Your task to perform on an android device: Search for "logitech g pro" on bestbuy, select the first entry, and add it to the cart. Image 0: 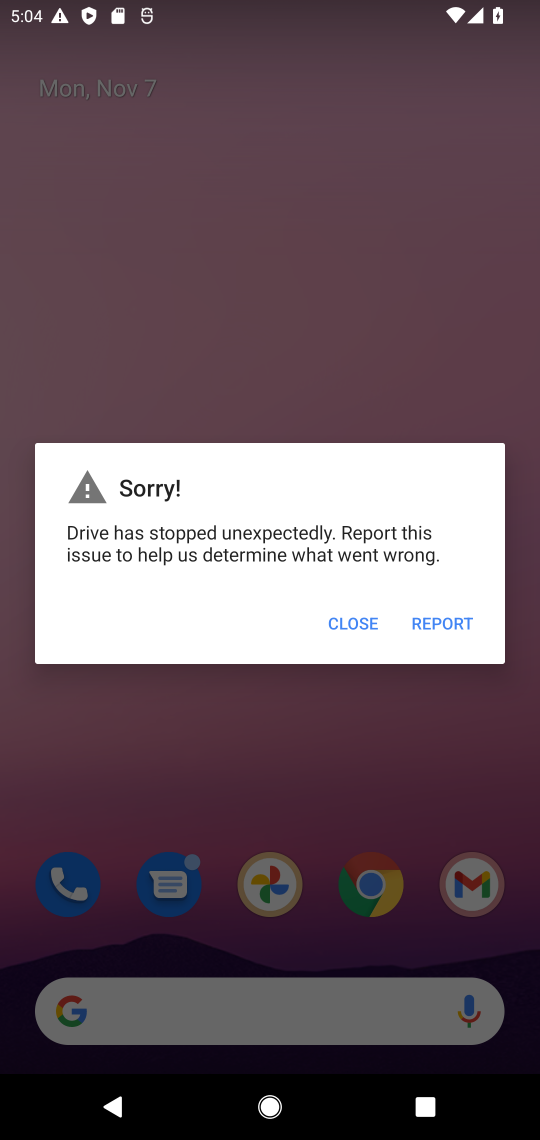
Step 0: press home button
Your task to perform on an android device: Search for "logitech g pro" on bestbuy, select the first entry, and add it to the cart. Image 1: 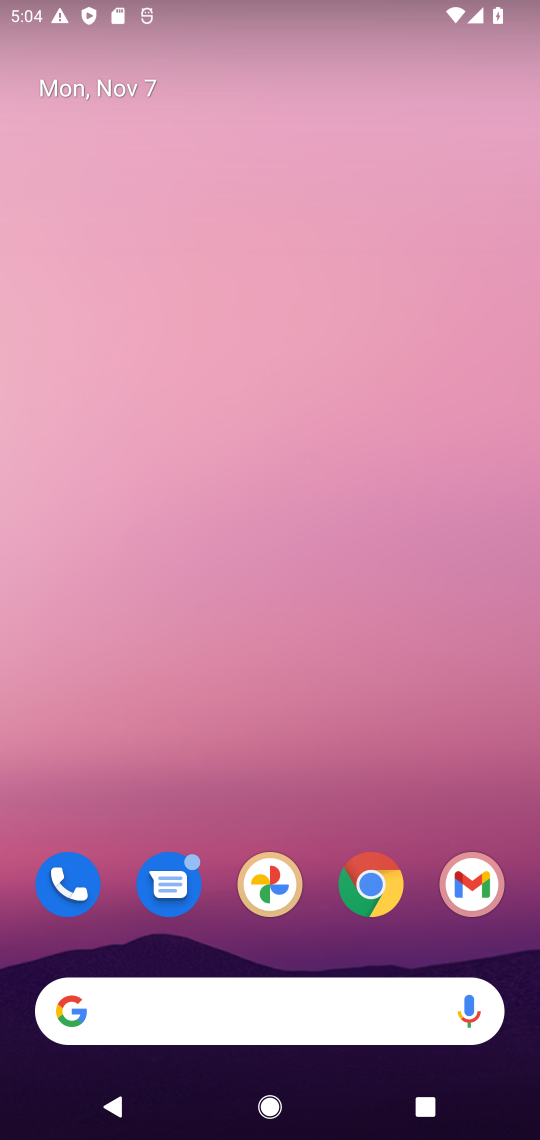
Step 1: drag from (312, 935) to (365, 64)
Your task to perform on an android device: Search for "logitech g pro" on bestbuy, select the first entry, and add it to the cart. Image 2: 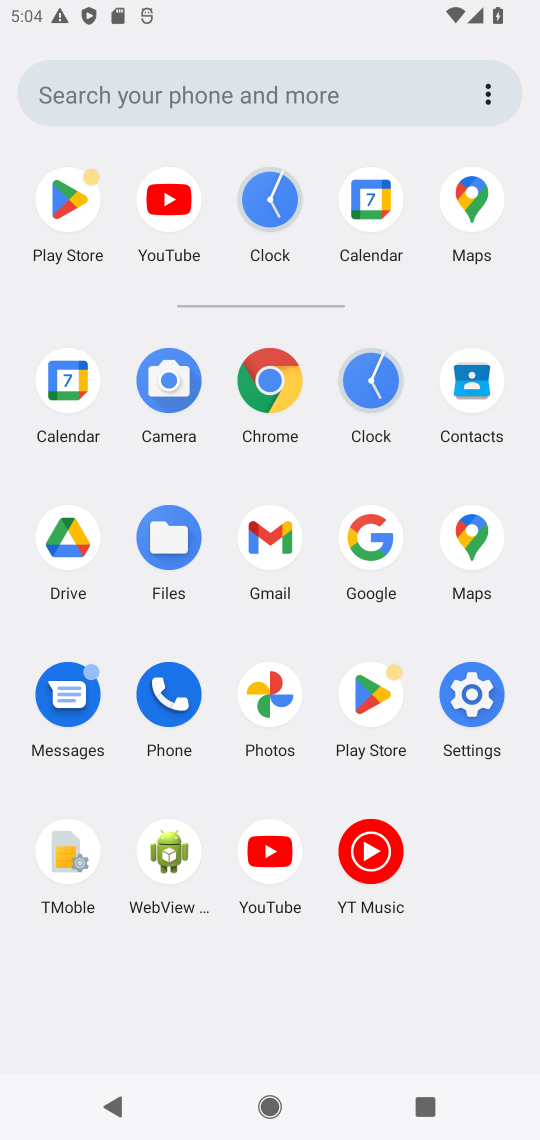
Step 2: click (263, 387)
Your task to perform on an android device: Search for "logitech g pro" on bestbuy, select the first entry, and add it to the cart. Image 3: 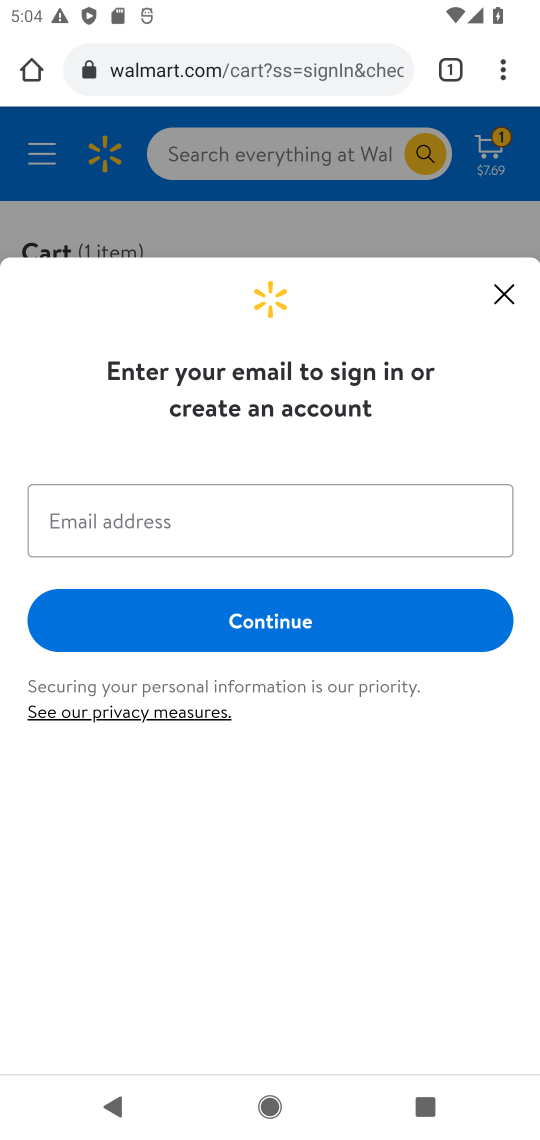
Step 3: click (327, 53)
Your task to perform on an android device: Search for "logitech g pro" on bestbuy, select the first entry, and add it to the cart. Image 4: 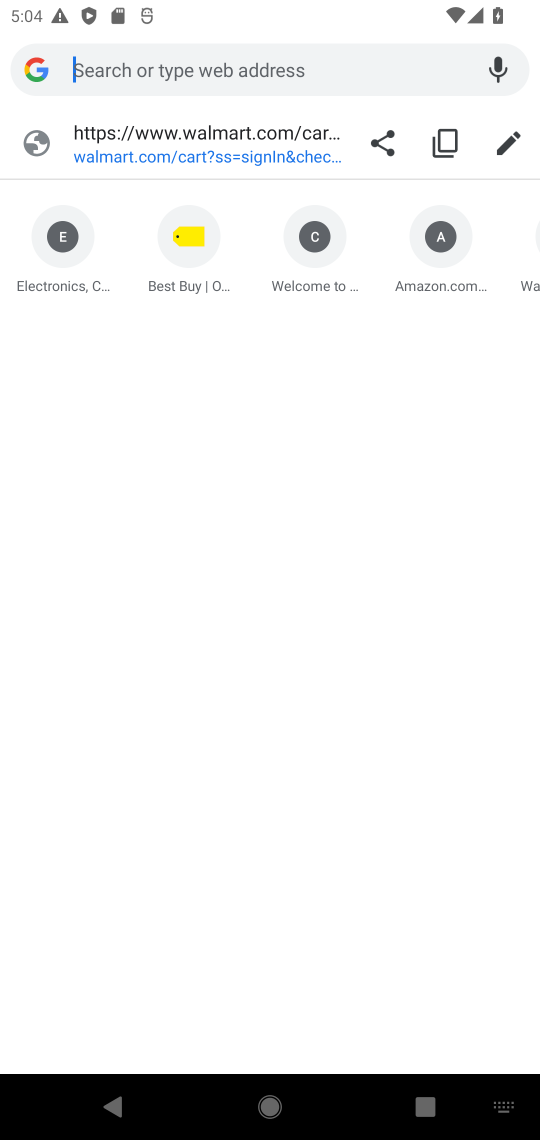
Step 4: type "logitech g pro"
Your task to perform on an android device: Search for "logitech g pro" on bestbuy, select the first entry, and add it to the cart. Image 5: 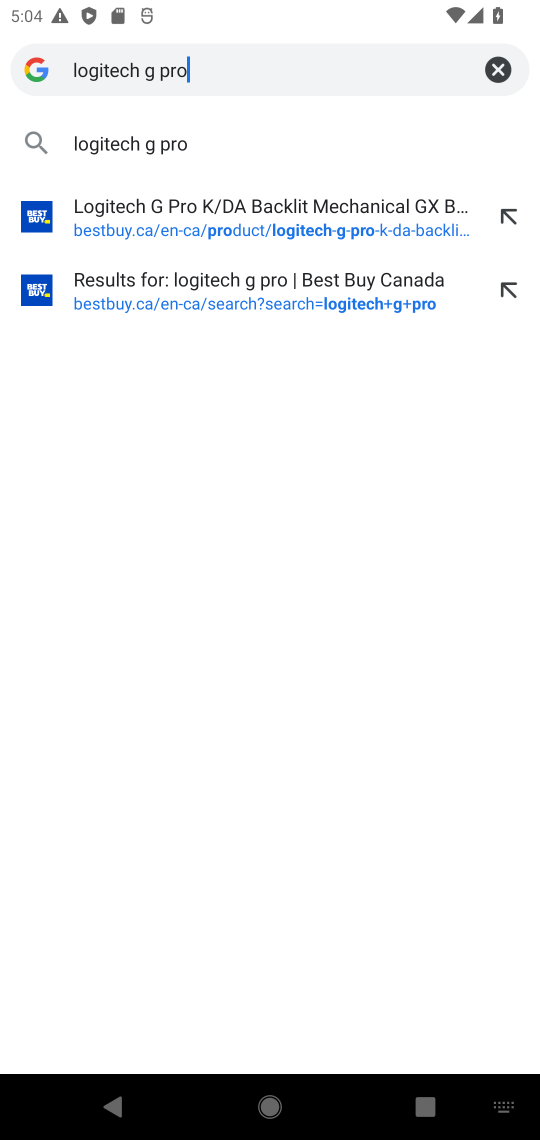
Step 5: press enter
Your task to perform on an android device: Search for "logitech g pro" on bestbuy, select the first entry, and add it to the cart. Image 6: 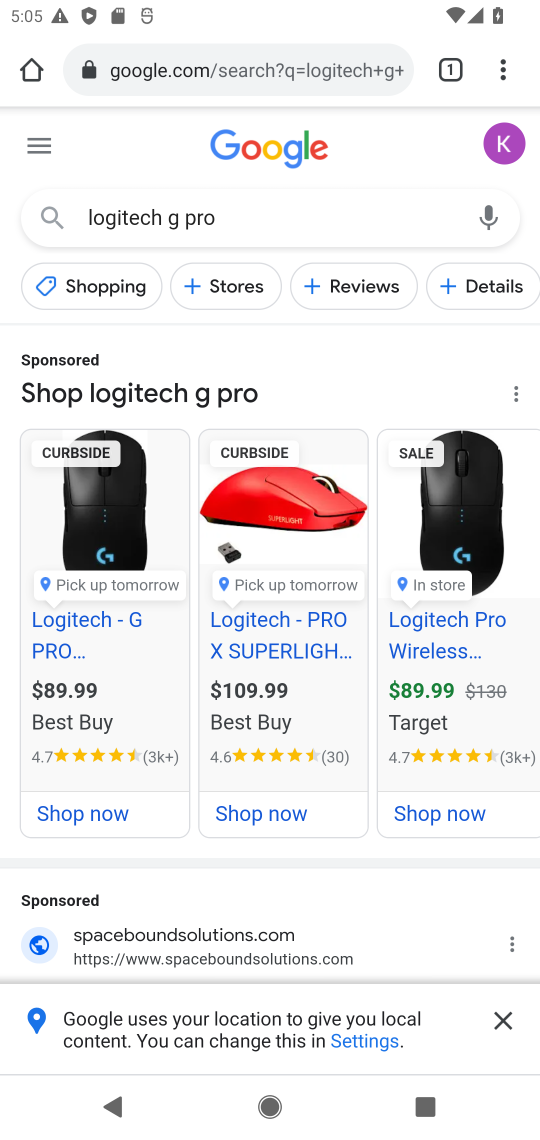
Step 6: click (314, 60)
Your task to perform on an android device: Search for "logitech g pro" on bestbuy, select the first entry, and add it to the cart. Image 7: 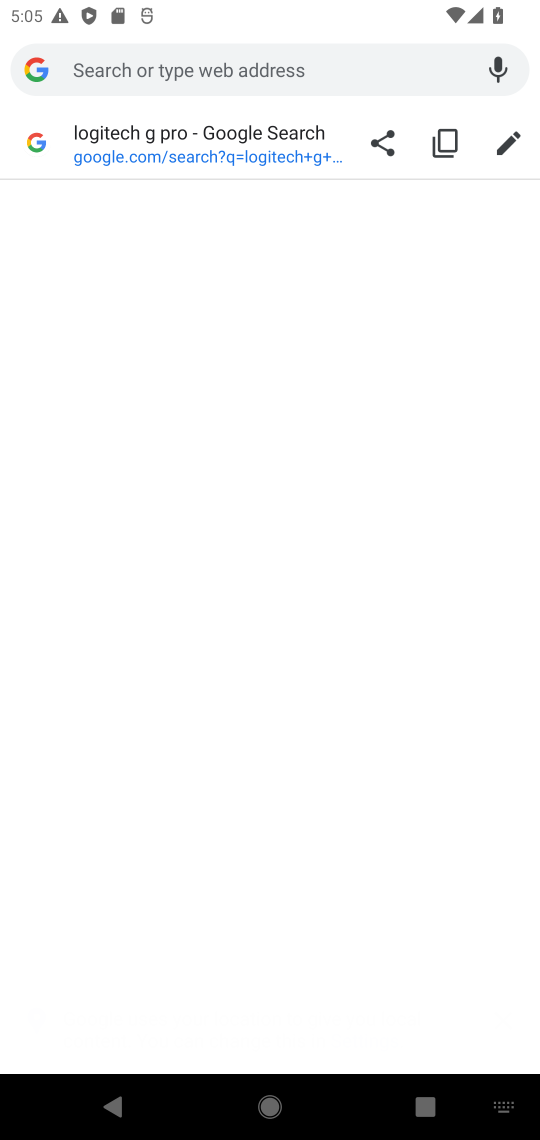
Step 7: type "bestbuy.com"
Your task to perform on an android device: Search for "logitech g pro" on bestbuy, select the first entry, and add it to the cart. Image 8: 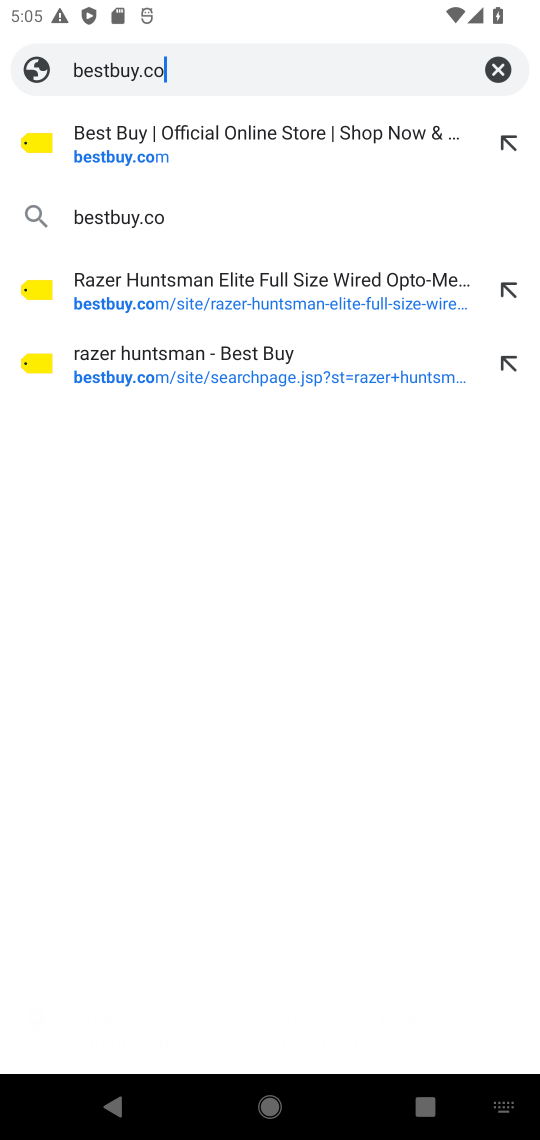
Step 8: press enter
Your task to perform on an android device: Search for "logitech g pro" on bestbuy, select the first entry, and add it to the cart. Image 9: 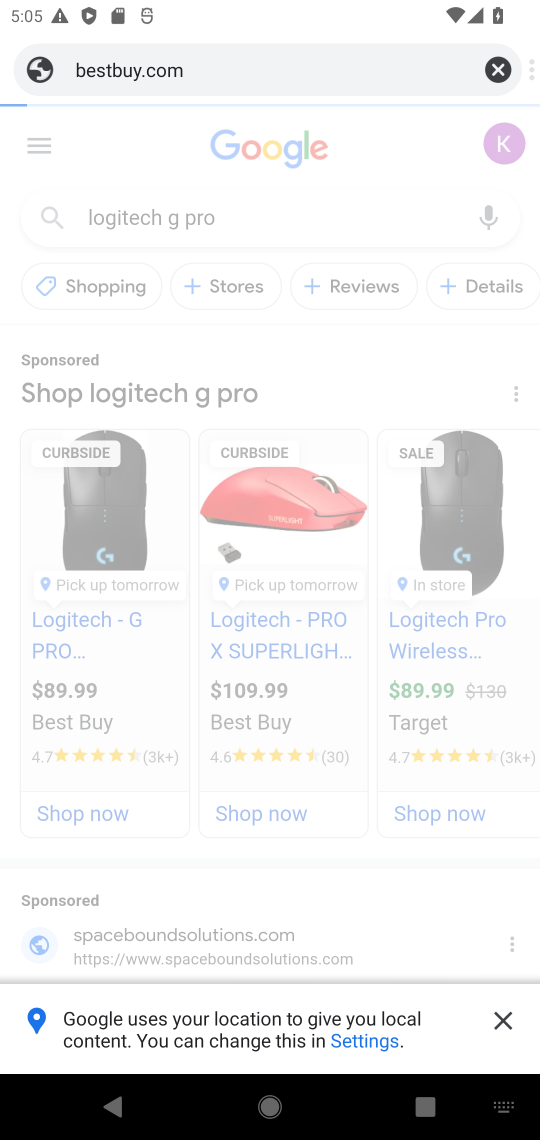
Step 9: press enter
Your task to perform on an android device: Search for "logitech g pro" on bestbuy, select the first entry, and add it to the cart. Image 10: 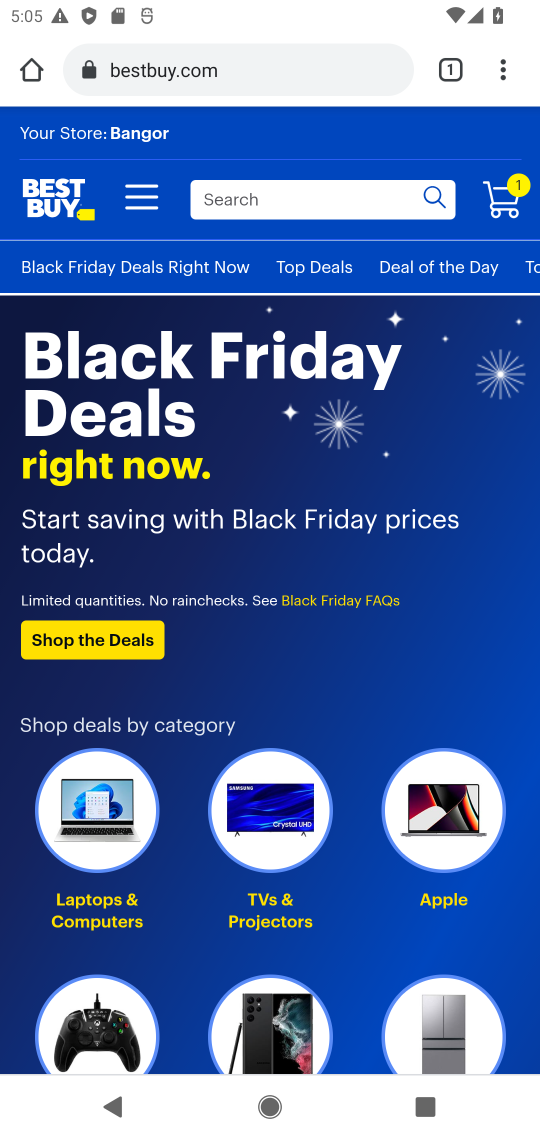
Step 10: click (336, 192)
Your task to perform on an android device: Search for "logitech g pro" on bestbuy, select the first entry, and add it to the cart. Image 11: 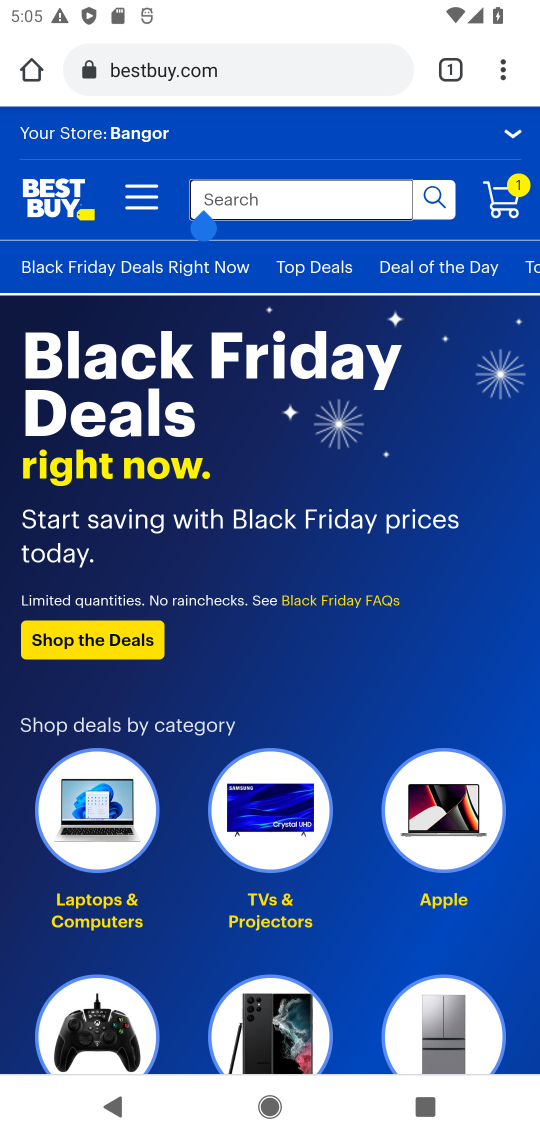
Step 11: type "logitech g pro"
Your task to perform on an android device: Search for "logitech g pro" on bestbuy, select the first entry, and add it to the cart. Image 12: 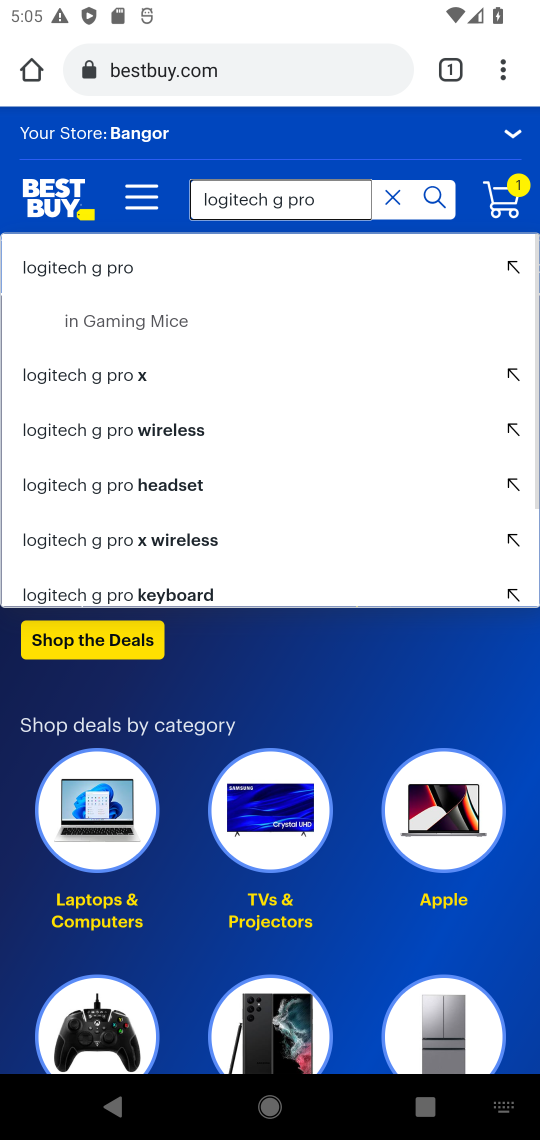
Step 12: press enter
Your task to perform on an android device: Search for "logitech g pro" on bestbuy, select the first entry, and add it to the cart. Image 13: 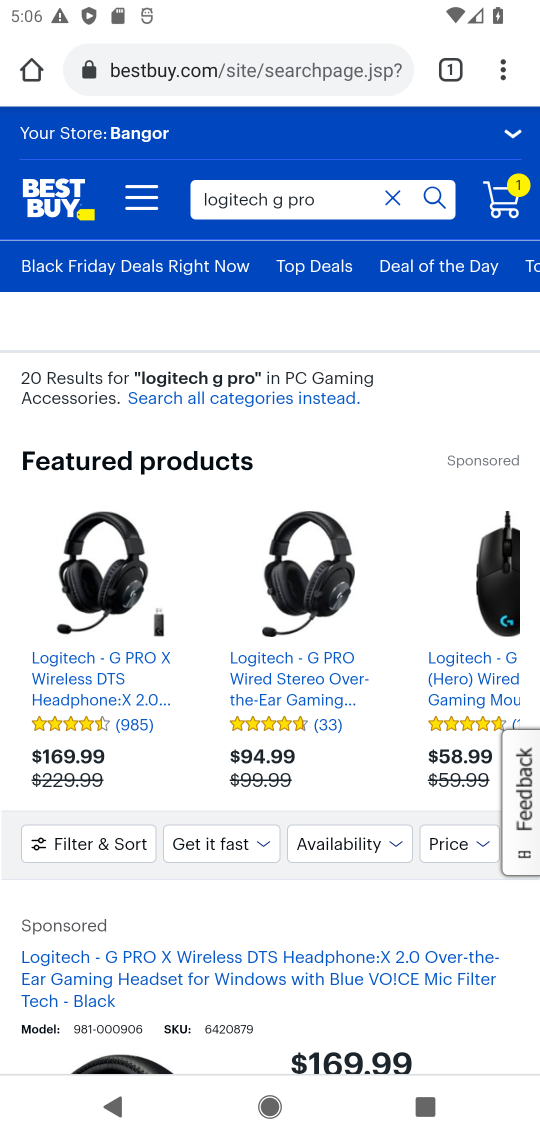
Step 13: drag from (248, 680) to (357, 2)
Your task to perform on an android device: Search for "logitech g pro" on bestbuy, select the first entry, and add it to the cart. Image 14: 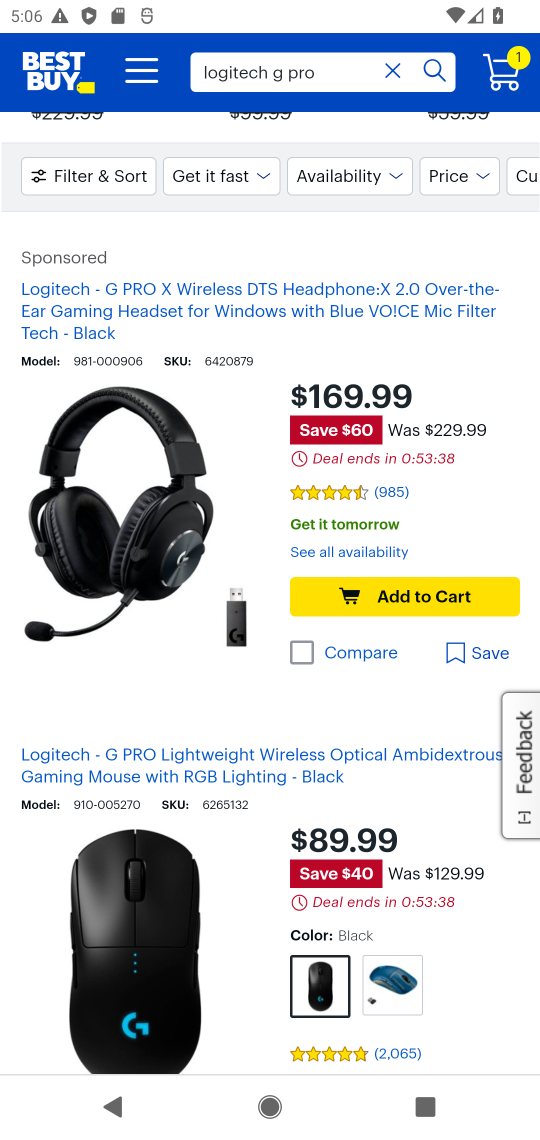
Step 14: drag from (339, 594) to (339, 348)
Your task to perform on an android device: Search for "logitech g pro" on bestbuy, select the first entry, and add it to the cart. Image 15: 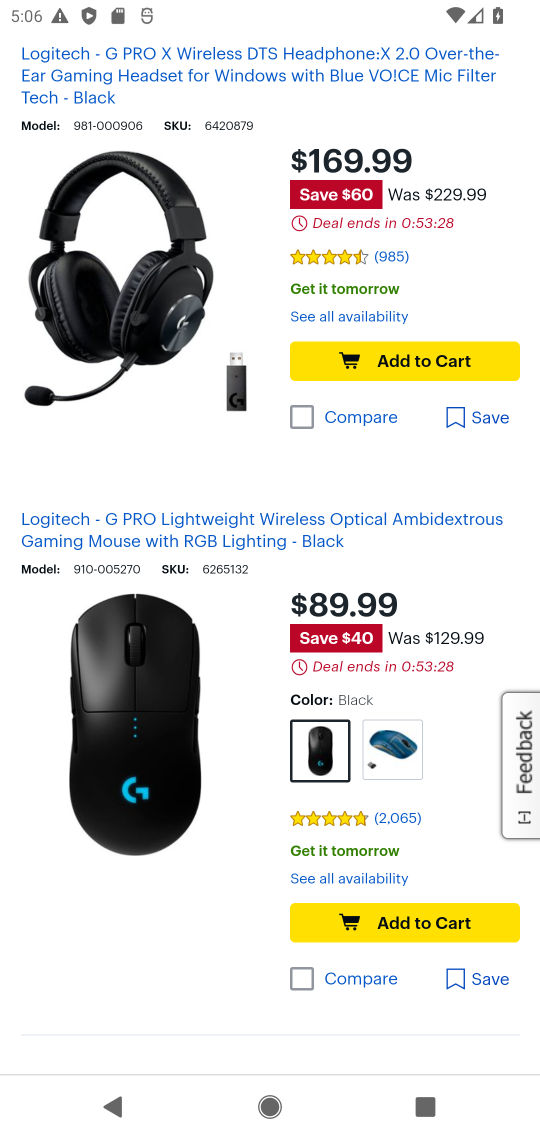
Step 15: drag from (373, 545) to (341, 428)
Your task to perform on an android device: Search for "logitech g pro" on bestbuy, select the first entry, and add it to the cart. Image 16: 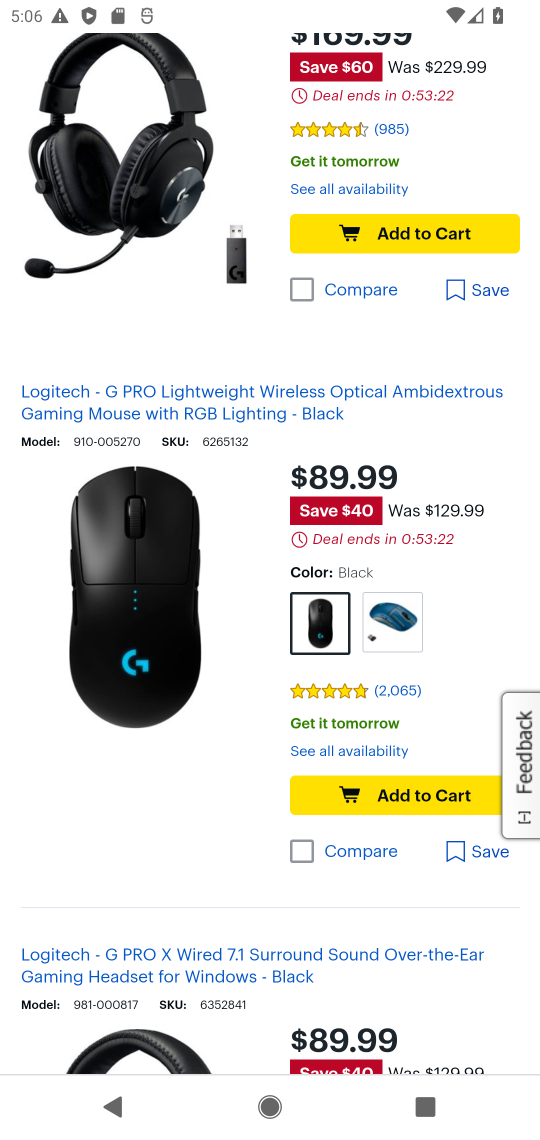
Step 16: click (382, 795)
Your task to perform on an android device: Search for "logitech g pro" on bestbuy, select the first entry, and add it to the cart. Image 17: 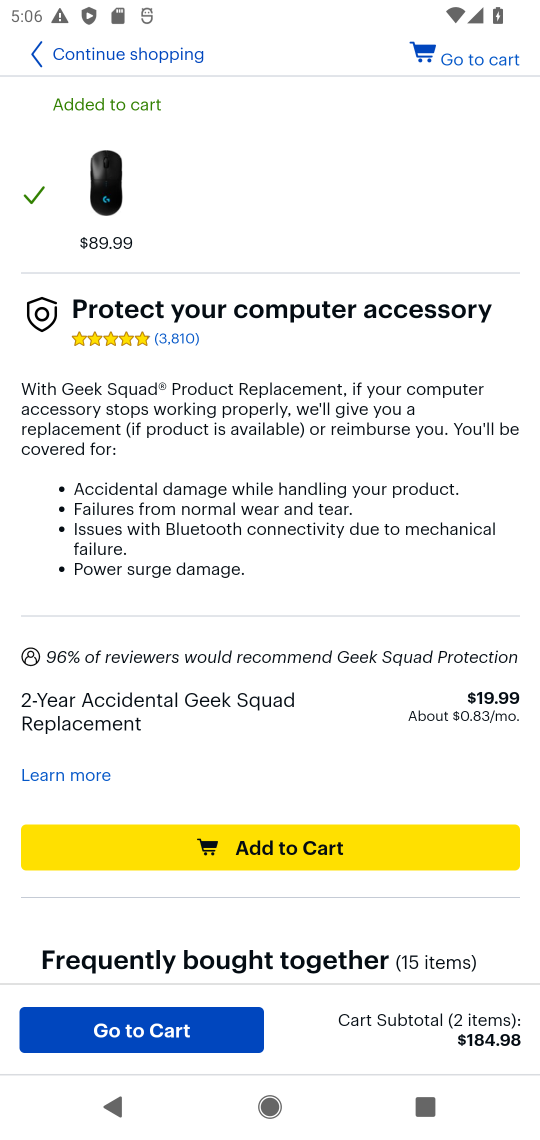
Step 17: task complete